Your task to perform on an android device: delete the emails in spam in the gmail app Image 0: 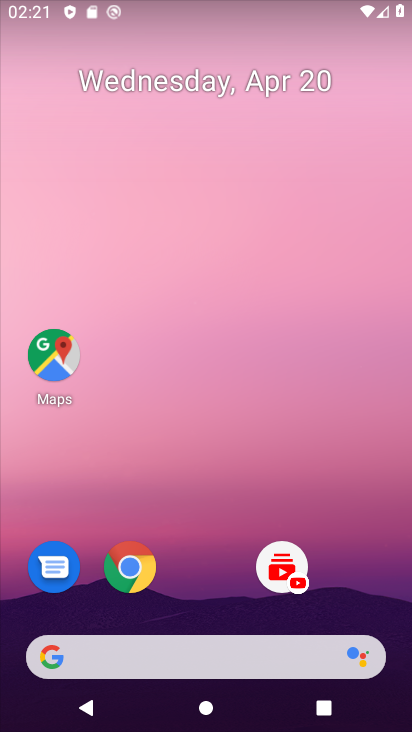
Step 0: drag from (204, 584) to (232, 122)
Your task to perform on an android device: delete the emails in spam in the gmail app Image 1: 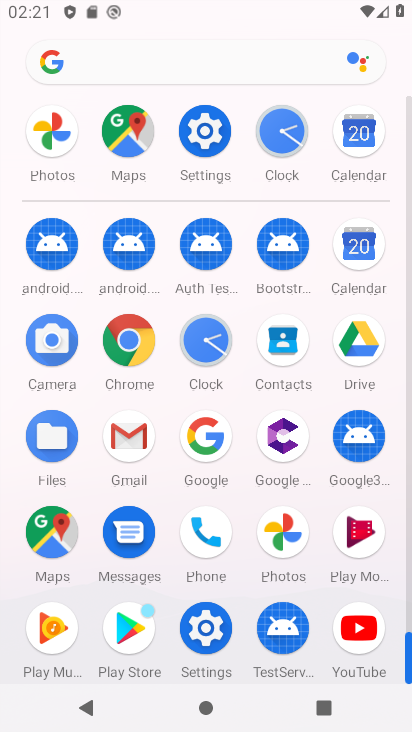
Step 1: click (104, 435)
Your task to perform on an android device: delete the emails in spam in the gmail app Image 2: 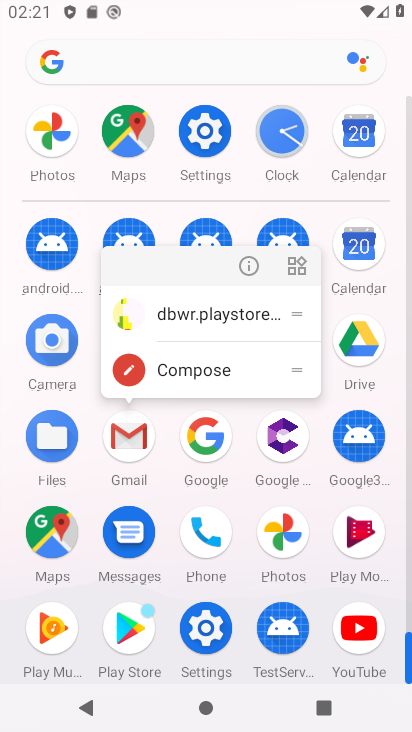
Step 2: click (250, 266)
Your task to perform on an android device: delete the emails in spam in the gmail app Image 3: 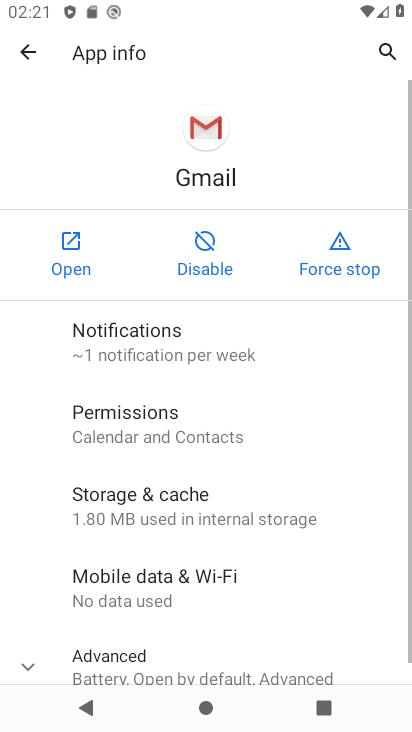
Step 3: click (69, 245)
Your task to perform on an android device: delete the emails in spam in the gmail app Image 4: 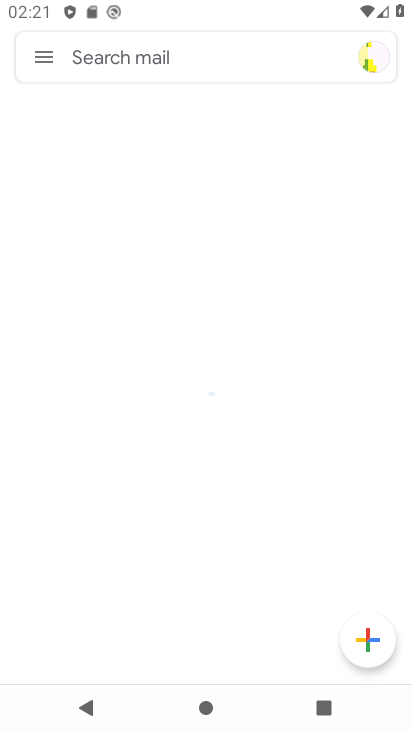
Step 4: drag from (239, 613) to (170, 234)
Your task to perform on an android device: delete the emails in spam in the gmail app Image 5: 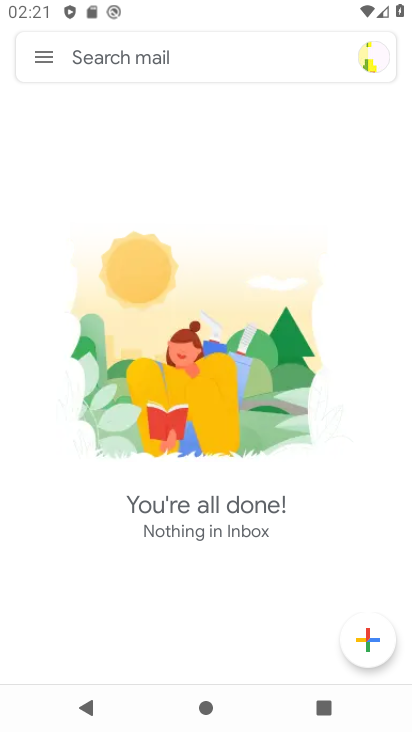
Step 5: drag from (225, 512) to (205, 262)
Your task to perform on an android device: delete the emails in spam in the gmail app Image 6: 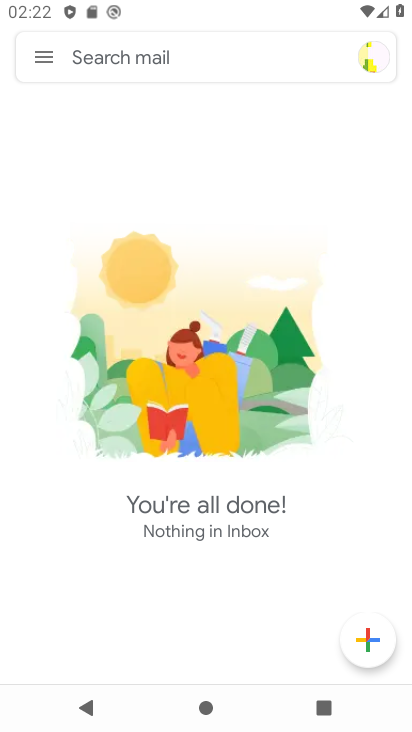
Step 6: click (35, 52)
Your task to perform on an android device: delete the emails in spam in the gmail app Image 7: 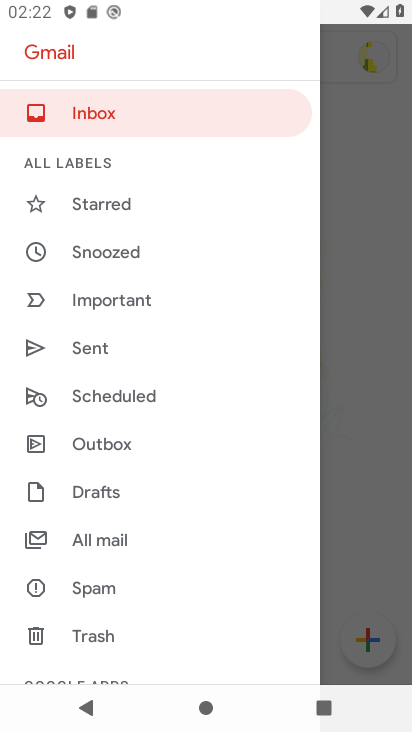
Step 7: click (119, 588)
Your task to perform on an android device: delete the emails in spam in the gmail app Image 8: 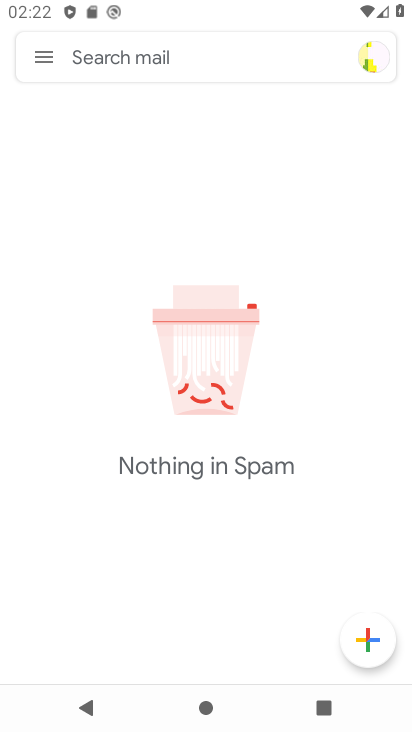
Step 8: task complete